Your task to perform on an android device: turn off translation in the chrome app Image 0: 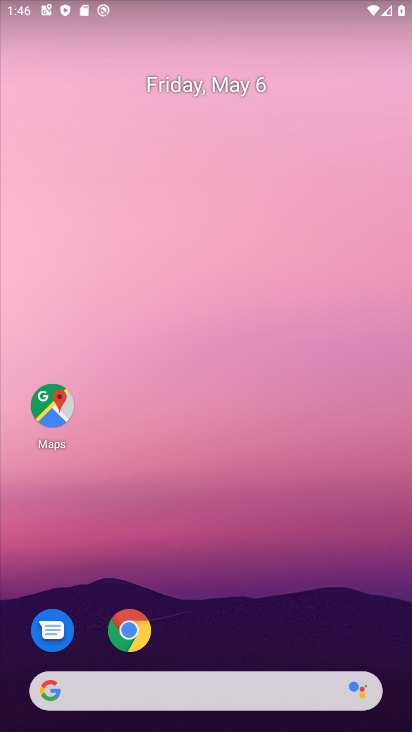
Step 0: click (133, 635)
Your task to perform on an android device: turn off translation in the chrome app Image 1: 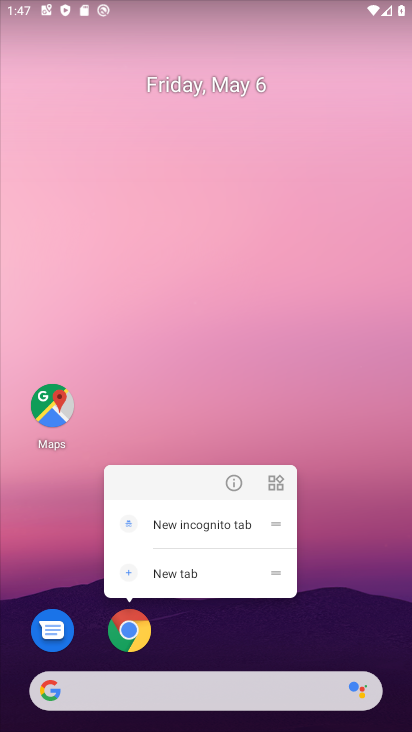
Step 1: click (139, 628)
Your task to perform on an android device: turn off translation in the chrome app Image 2: 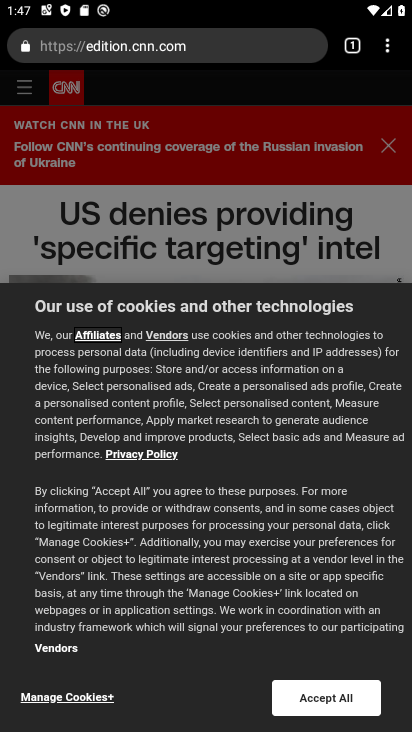
Step 2: drag from (388, 50) to (248, 502)
Your task to perform on an android device: turn off translation in the chrome app Image 3: 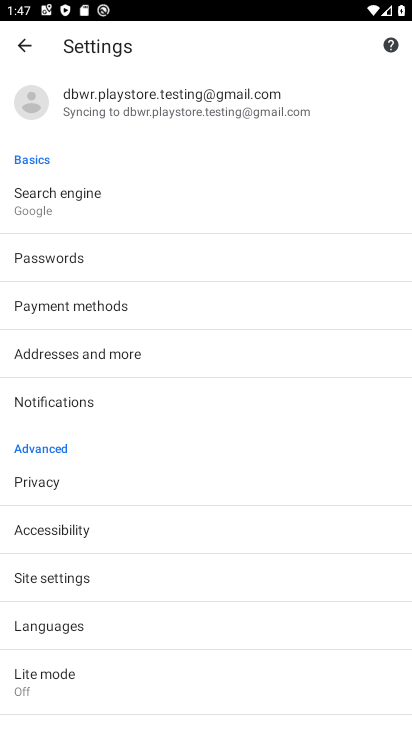
Step 3: click (95, 626)
Your task to perform on an android device: turn off translation in the chrome app Image 4: 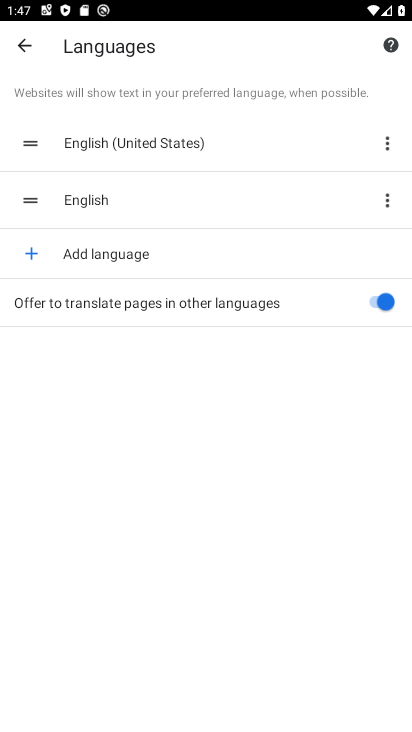
Step 4: click (374, 297)
Your task to perform on an android device: turn off translation in the chrome app Image 5: 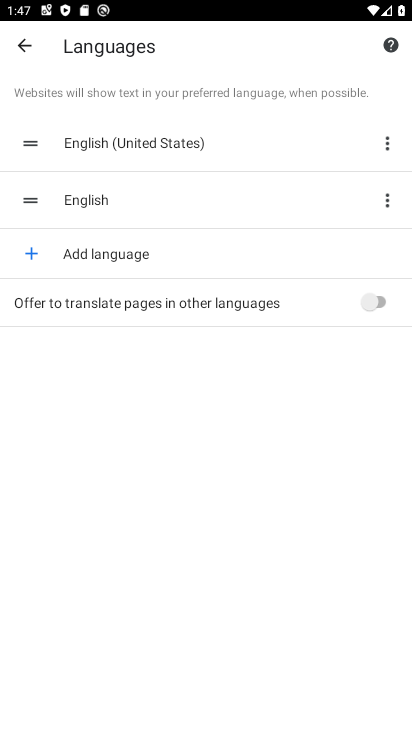
Step 5: task complete